Your task to perform on an android device: check storage Image 0: 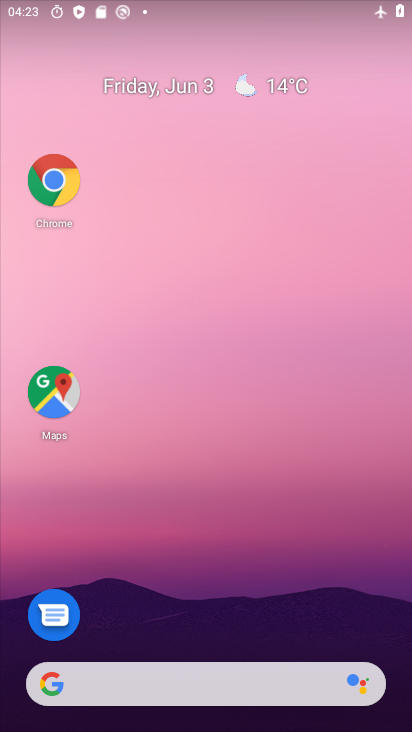
Step 0: drag from (118, 731) to (242, 243)
Your task to perform on an android device: check storage Image 1: 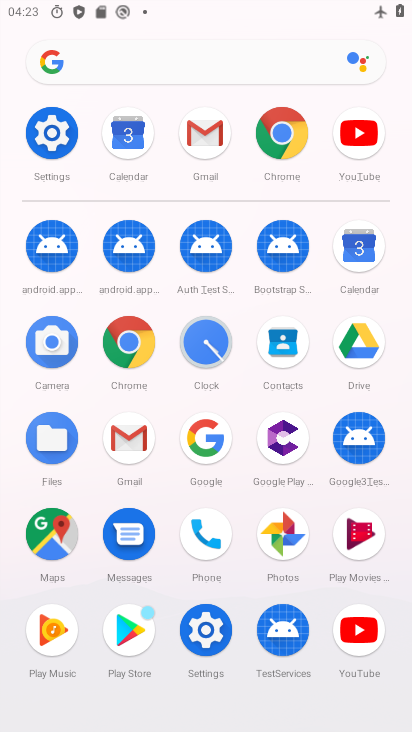
Step 1: click (203, 644)
Your task to perform on an android device: check storage Image 2: 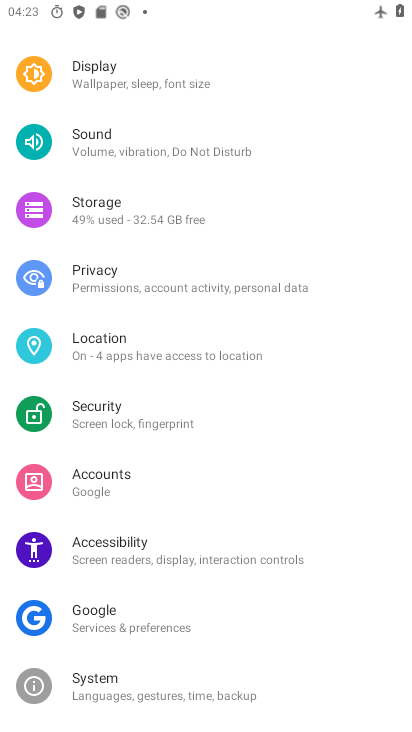
Step 2: click (138, 220)
Your task to perform on an android device: check storage Image 3: 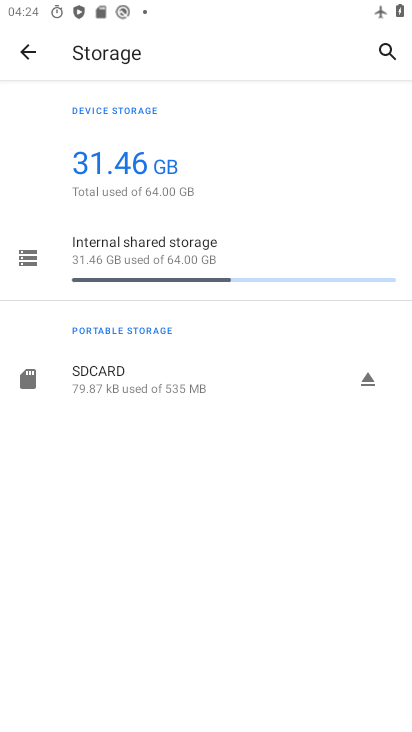
Step 3: task complete